Your task to perform on an android device: turn off sleep mode Image 0: 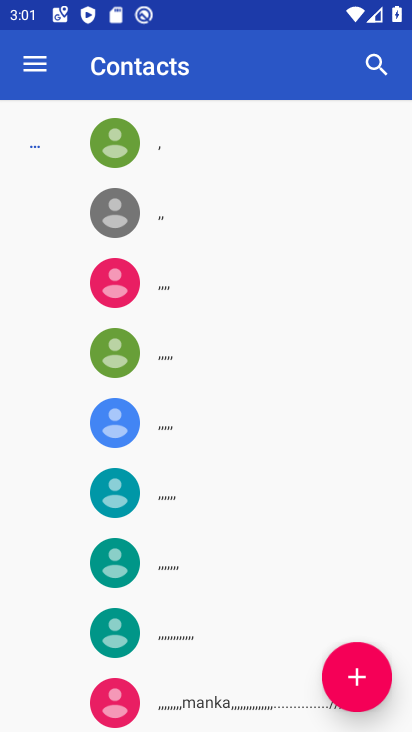
Step 0: press home button
Your task to perform on an android device: turn off sleep mode Image 1: 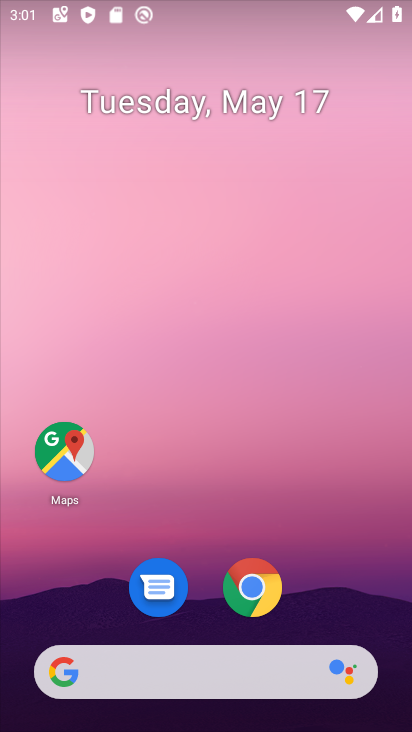
Step 1: drag from (175, 642) to (215, 3)
Your task to perform on an android device: turn off sleep mode Image 2: 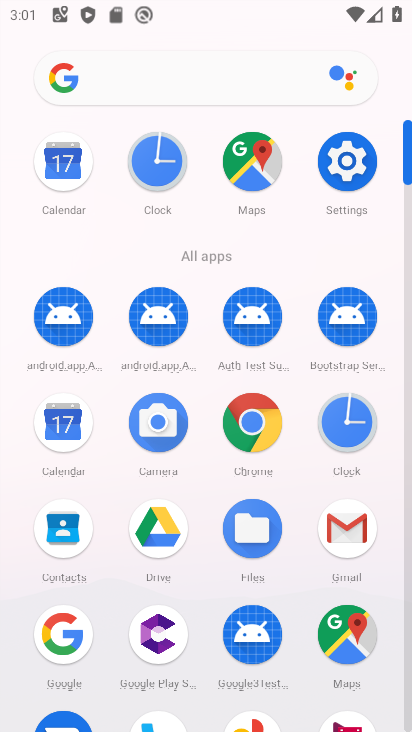
Step 2: click (365, 174)
Your task to perform on an android device: turn off sleep mode Image 3: 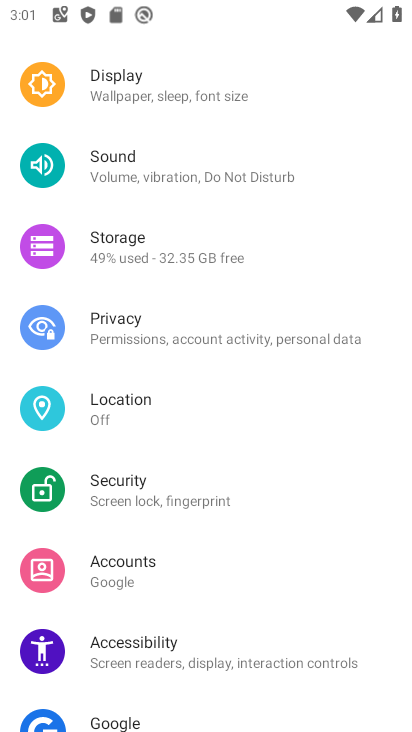
Step 3: drag from (199, 199) to (257, 677)
Your task to perform on an android device: turn off sleep mode Image 4: 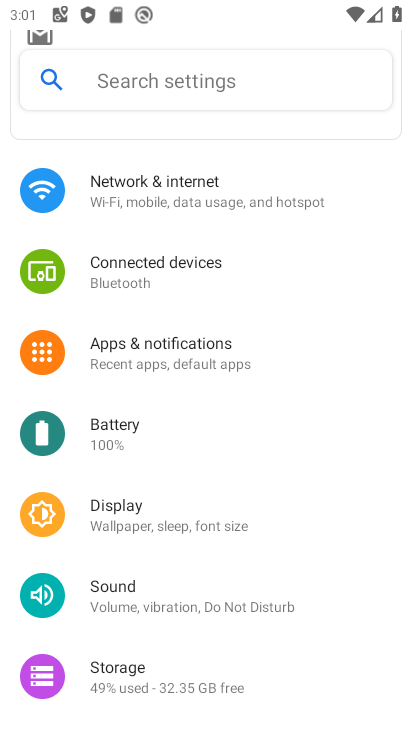
Step 4: click (175, 174)
Your task to perform on an android device: turn off sleep mode Image 5: 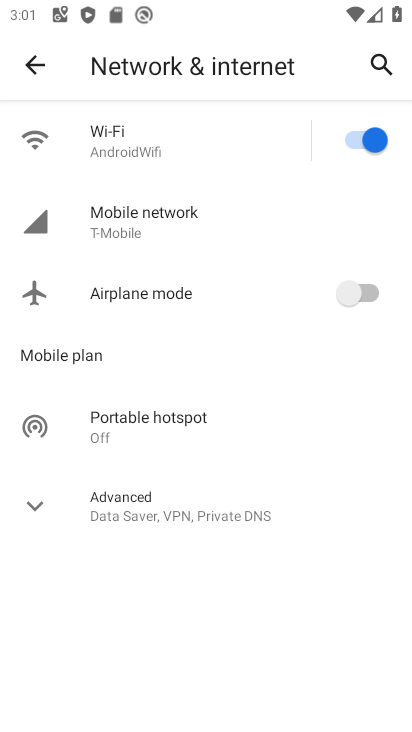
Step 5: press back button
Your task to perform on an android device: turn off sleep mode Image 6: 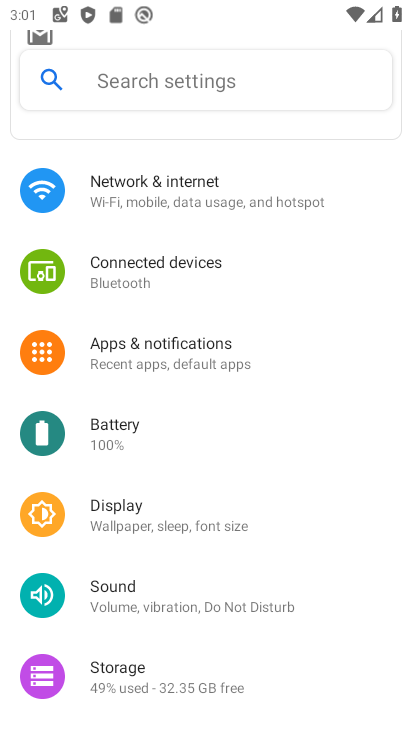
Step 6: click (178, 526)
Your task to perform on an android device: turn off sleep mode Image 7: 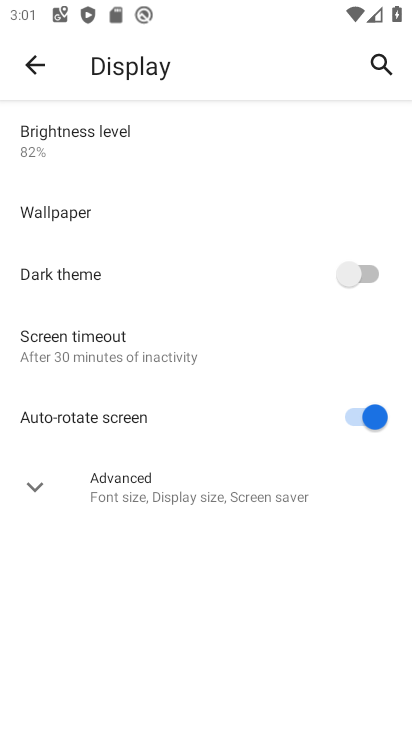
Step 7: task complete